Your task to perform on an android device: Go to Amazon Image 0: 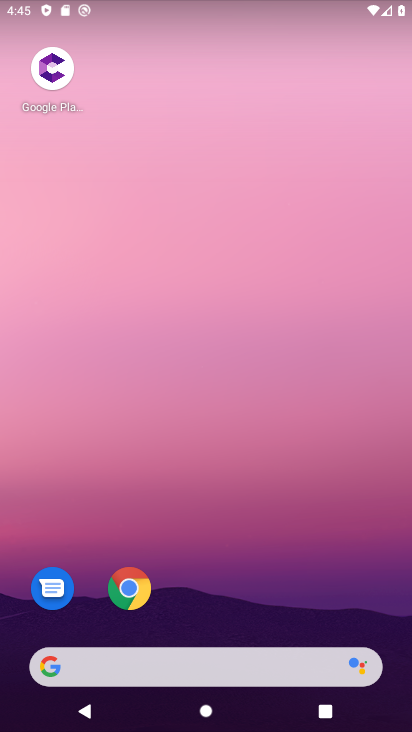
Step 0: click (133, 599)
Your task to perform on an android device: Go to Amazon Image 1: 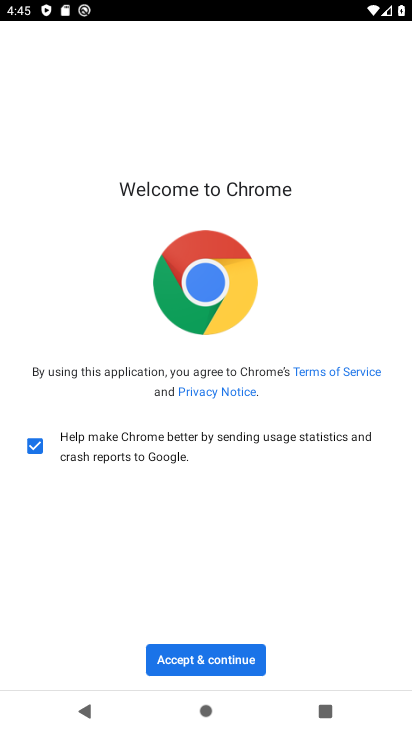
Step 1: click (201, 665)
Your task to perform on an android device: Go to Amazon Image 2: 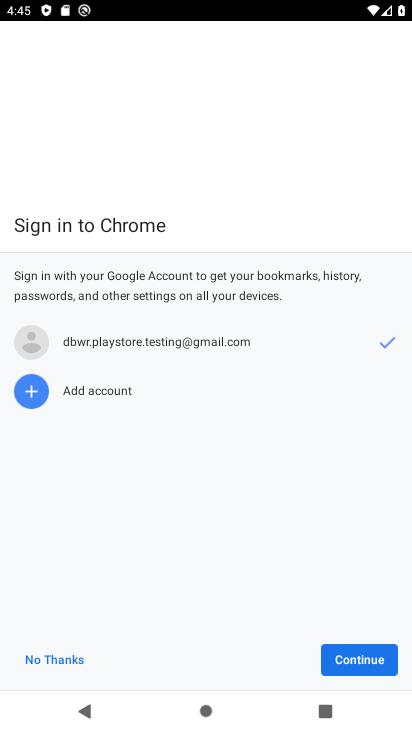
Step 2: click (376, 662)
Your task to perform on an android device: Go to Amazon Image 3: 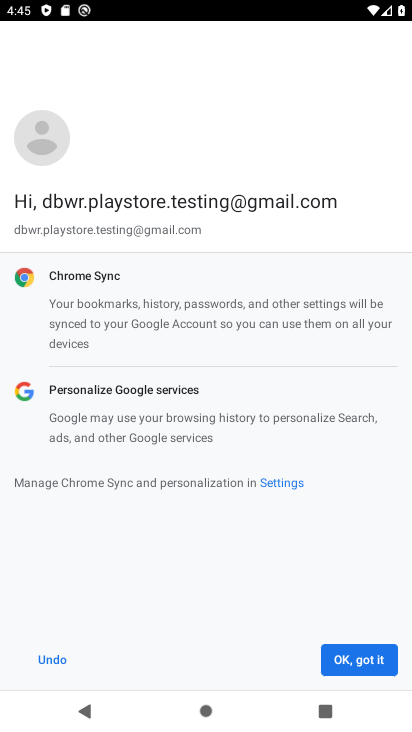
Step 3: click (376, 662)
Your task to perform on an android device: Go to Amazon Image 4: 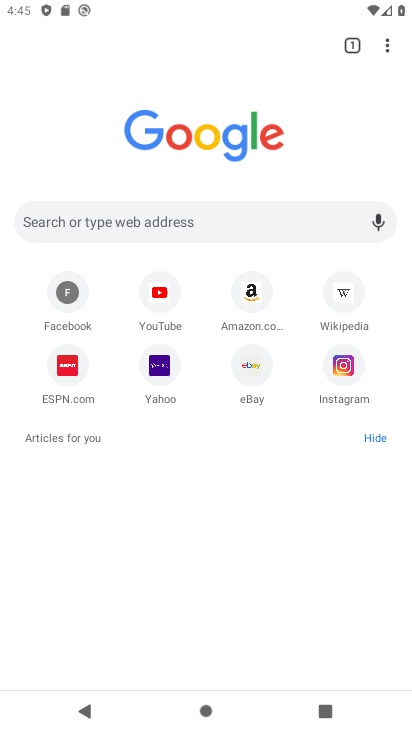
Step 4: click (248, 308)
Your task to perform on an android device: Go to Amazon Image 5: 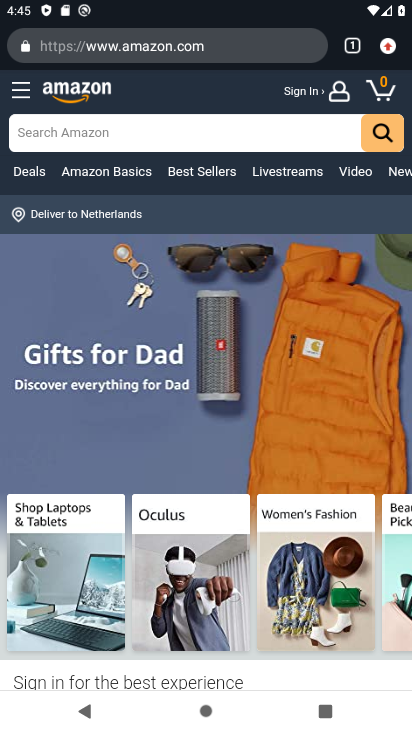
Step 5: task complete